Your task to perform on an android device: turn on airplane mode Image 0: 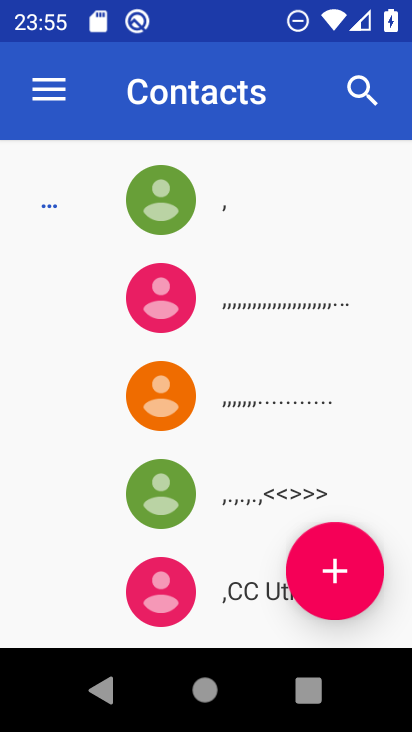
Step 0: drag from (260, 501) to (272, 182)
Your task to perform on an android device: turn on airplane mode Image 1: 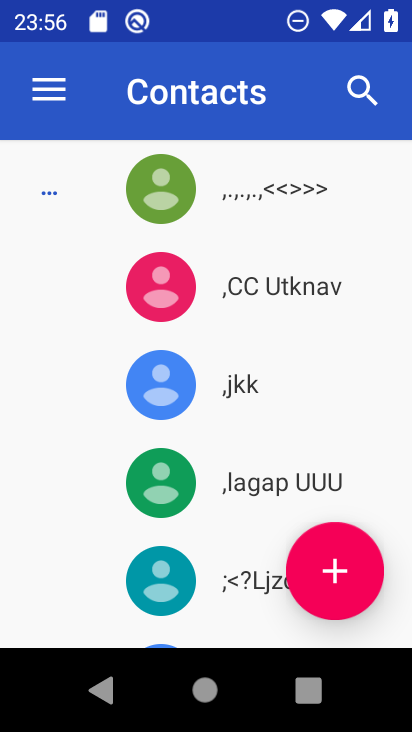
Step 1: press home button
Your task to perform on an android device: turn on airplane mode Image 2: 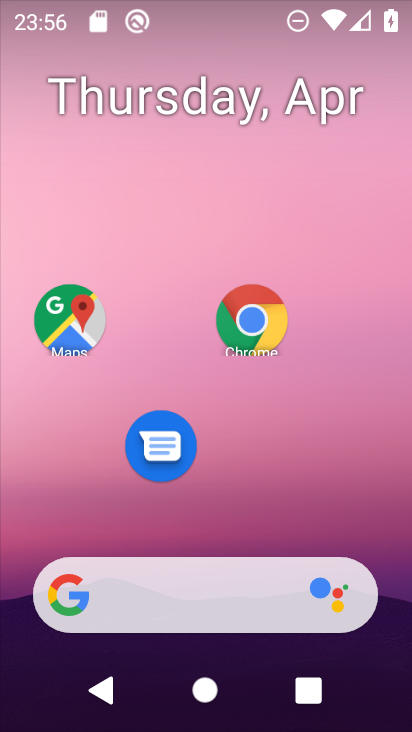
Step 2: drag from (215, 521) to (207, 157)
Your task to perform on an android device: turn on airplane mode Image 3: 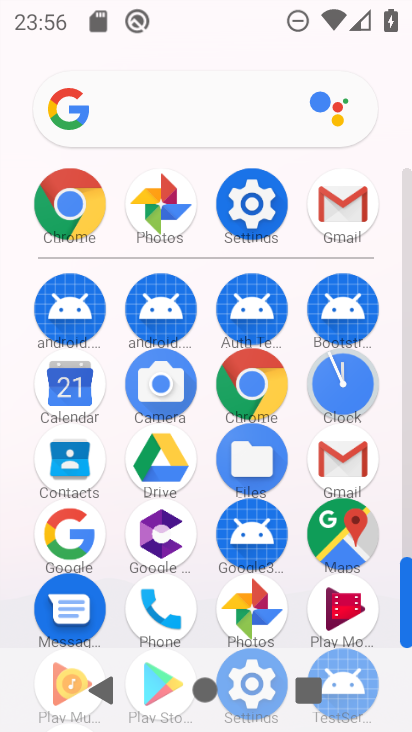
Step 3: click (225, 204)
Your task to perform on an android device: turn on airplane mode Image 4: 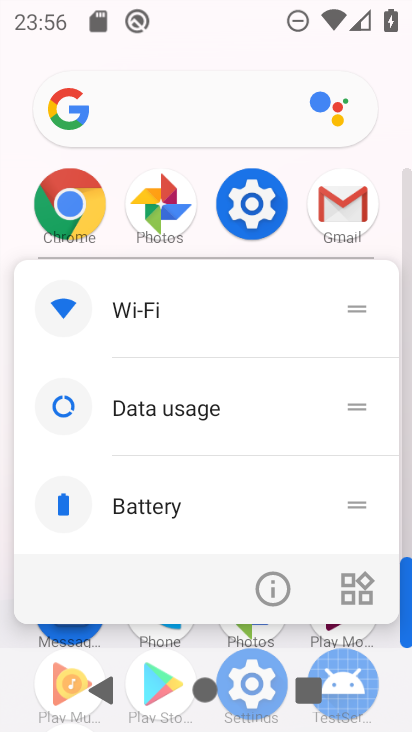
Step 4: click (291, 587)
Your task to perform on an android device: turn on airplane mode Image 5: 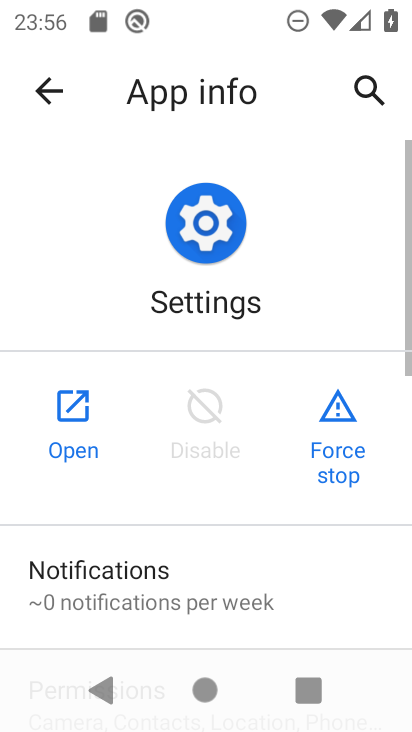
Step 5: click (83, 456)
Your task to perform on an android device: turn on airplane mode Image 6: 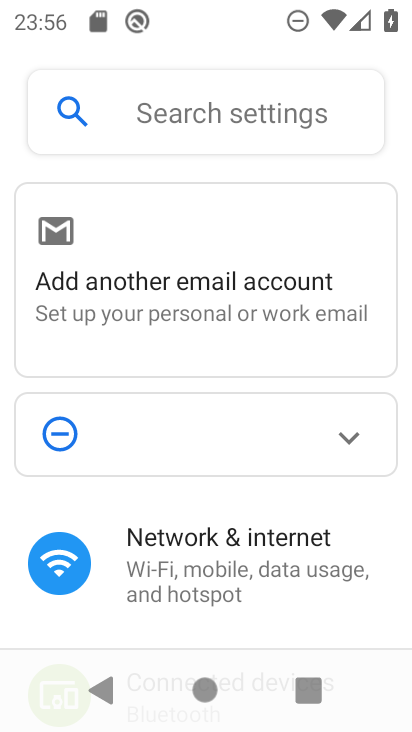
Step 6: click (254, 572)
Your task to perform on an android device: turn on airplane mode Image 7: 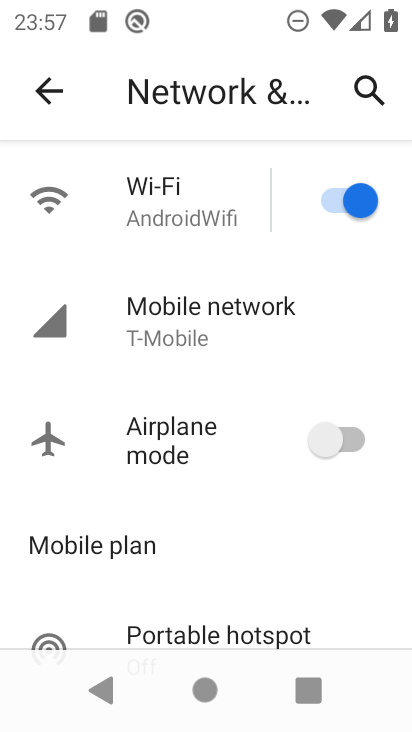
Step 7: drag from (204, 529) to (242, 214)
Your task to perform on an android device: turn on airplane mode Image 8: 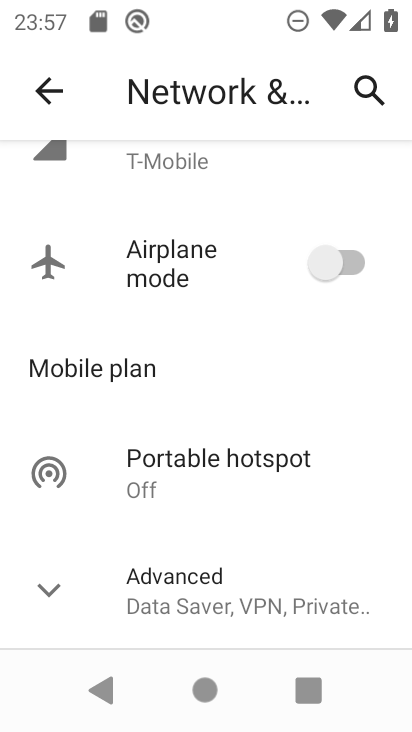
Step 8: click (260, 245)
Your task to perform on an android device: turn on airplane mode Image 9: 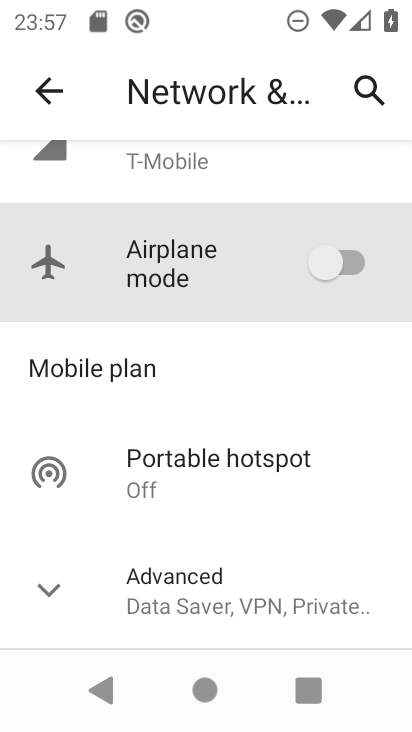
Step 9: task complete